Your task to perform on an android device: Open battery settings Image 0: 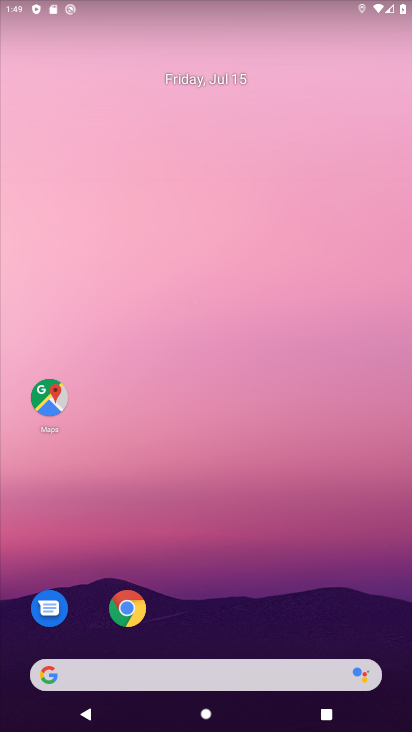
Step 0: drag from (214, 676) to (224, 7)
Your task to perform on an android device: Open battery settings Image 1: 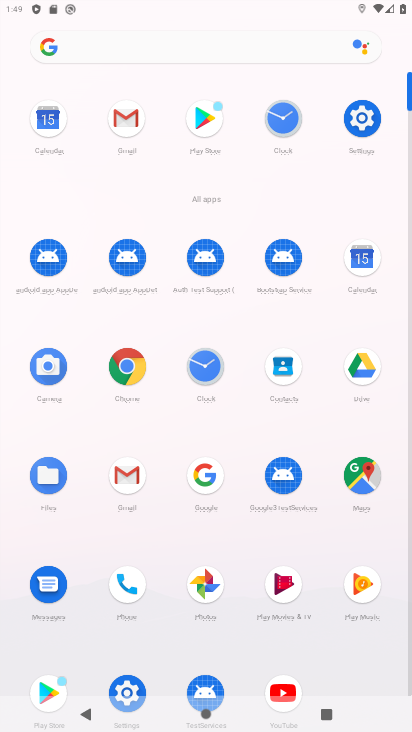
Step 1: click (366, 111)
Your task to perform on an android device: Open battery settings Image 2: 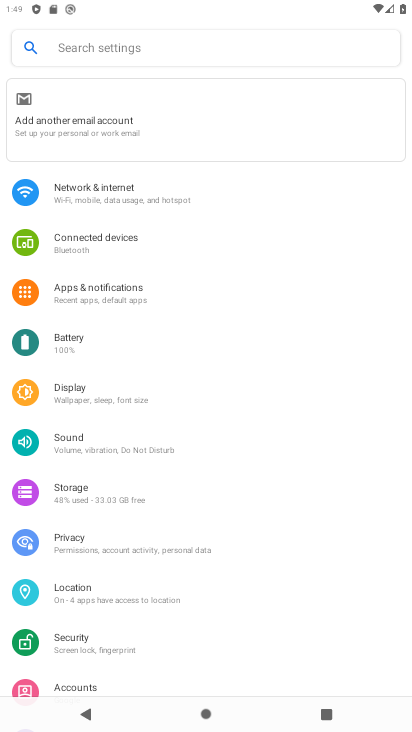
Step 2: click (71, 345)
Your task to perform on an android device: Open battery settings Image 3: 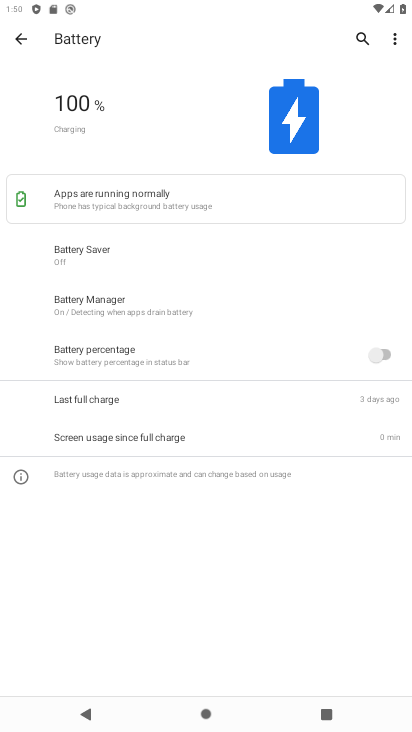
Step 3: task complete